Your task to perform on an android device: read, delete, or share a saved page in the chrome app Image 0: 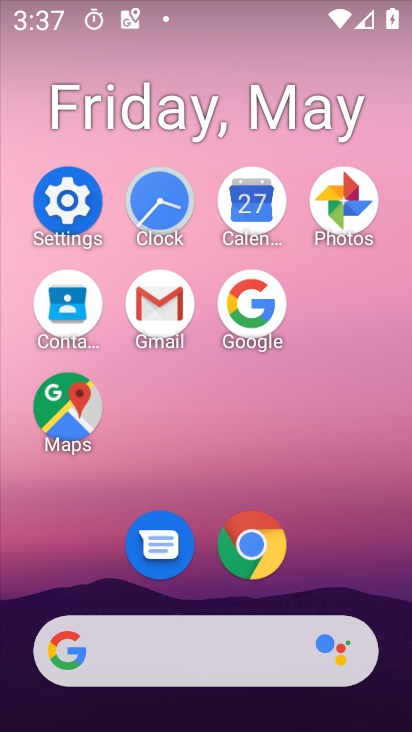
Step 0: click (249, 570)
Your task to perform on an android device: read, delete, or share a saved page in the chrome app Image 1: 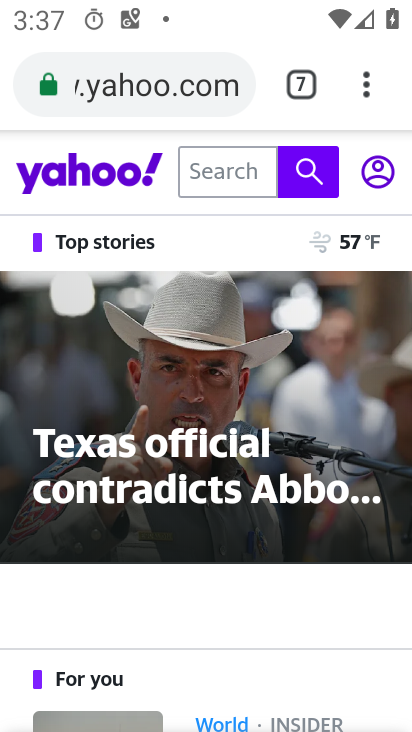
Step 1: click (375, 87)
Your task to perform on an android device: read, delete, or share a saved page in the chrome app Image 2: 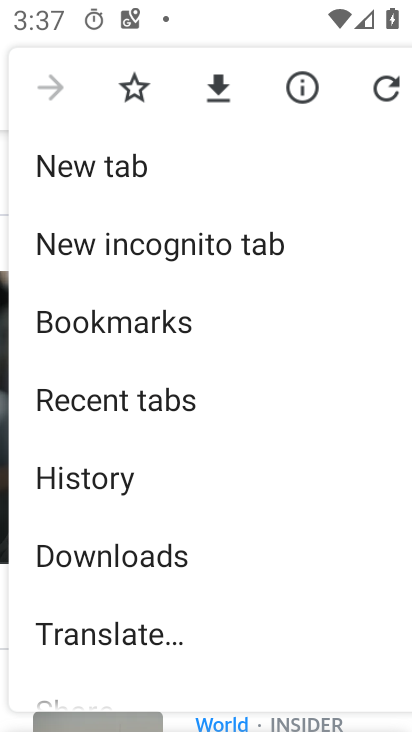
Step 2: click (171, 542)
Your task to perform on an android device: read, delete, or share a saved page in the chrome app Image 3: 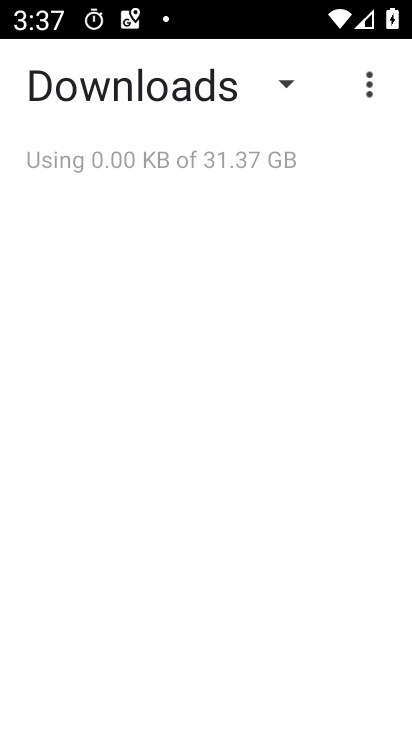
Step 3: task complete